Your task to perform on an android device: Go to sound settings Image 0: 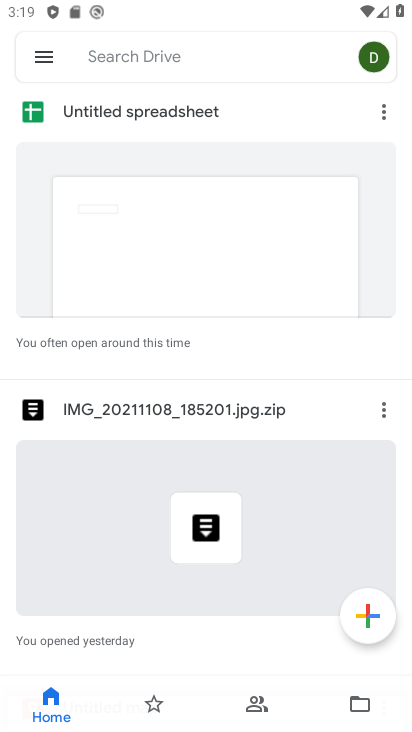
Step 0: press home button
Your task to perform on an android device: Go to sound settings Image 1: 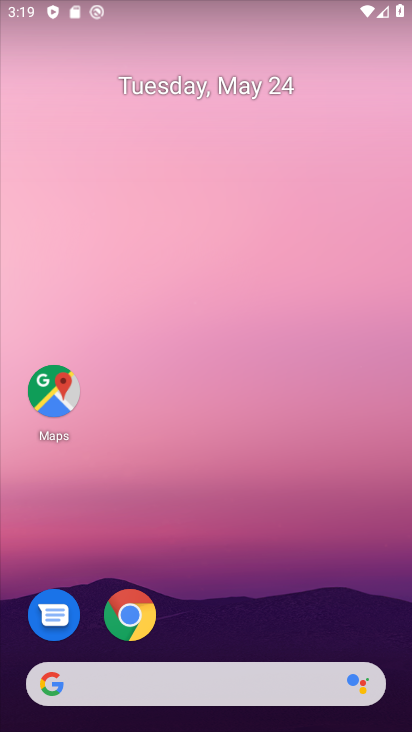
Step 1: drag from (229, 727) to (192, 25)
Your task to perform on an android device: Go to sound settings Image 2: 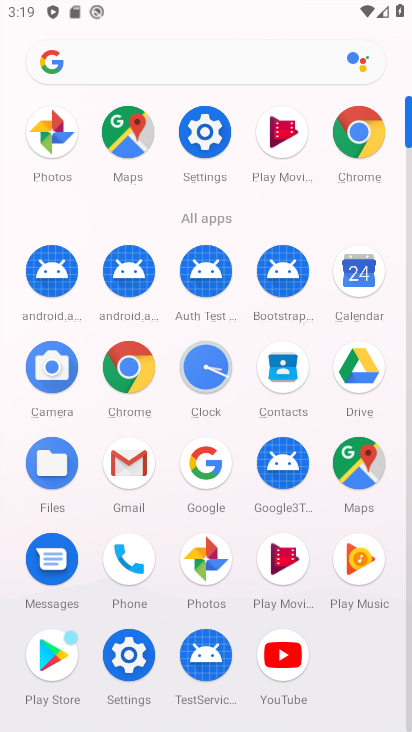
Step 2: click (201, 129)
Your task to perform on an android device: Go to sound settings Image 3: 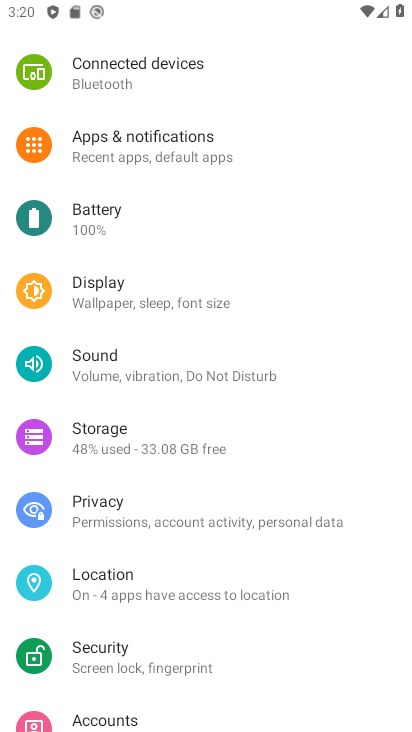
Step 3: click (115, 369)
Your task to perform on an android device: Go to sound settings Image 4: 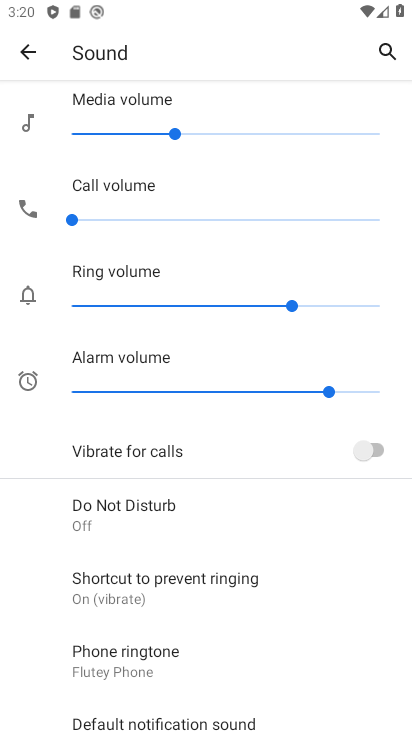
Step 4: task complete